Your task to perform on an android device: toggle notification dots Image 0: 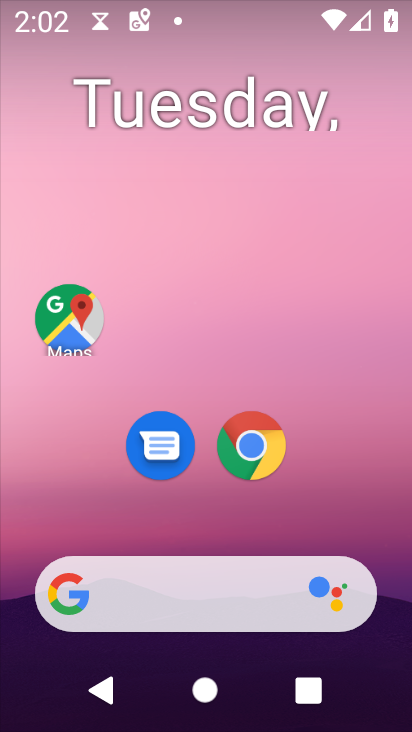
Step 0: drag from (333, 637) to (350, 9)
Your task to perform on an android device: toggle notification dots Image 1: 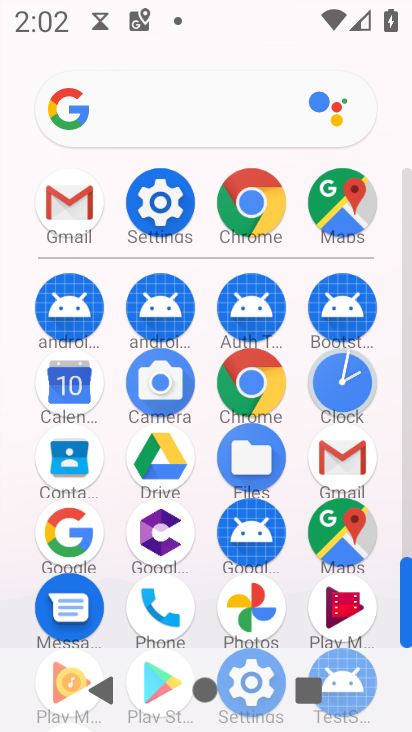
Step 1: click (156, 191)
Your task to perform on an android device: toggle notification dots Image 2: 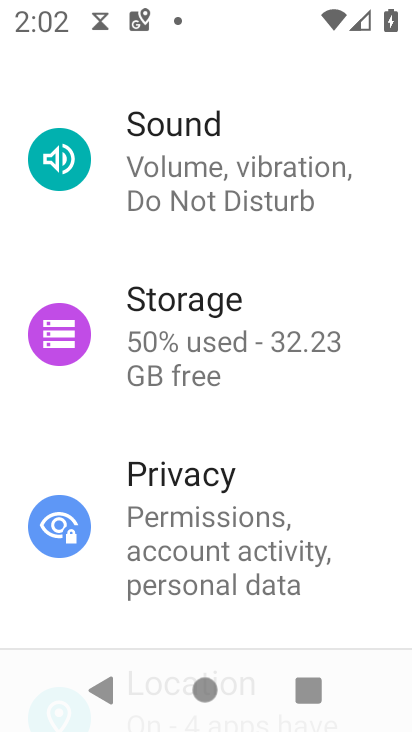
Step 2: drag from (261, 251) to (305, 196)
Your task to perform on an android device: toggle notification dots Image 3: 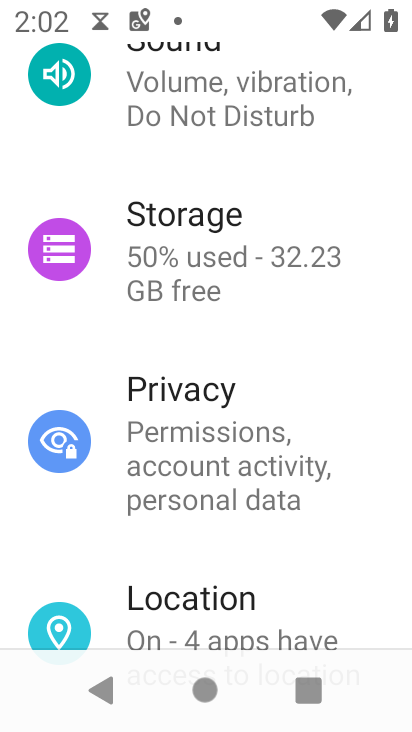
Step 3: click (326, 599)
Your task to perform on an android device: toggle notification dots Image 4: 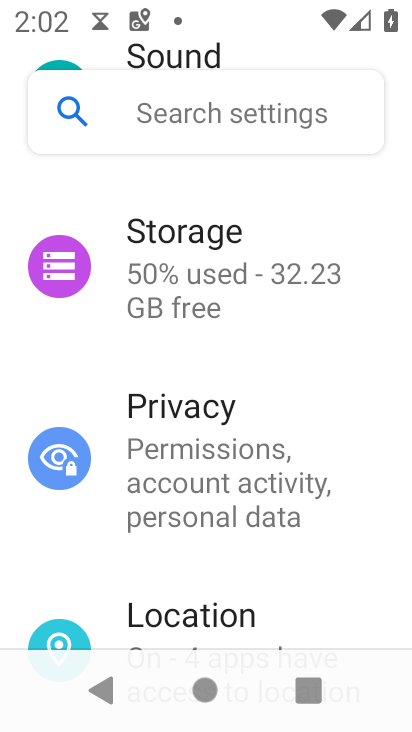
Step 4: drag from (306, 227) to (322, 632)
Your task to perform on an android device: toggle notification dots Image 5: 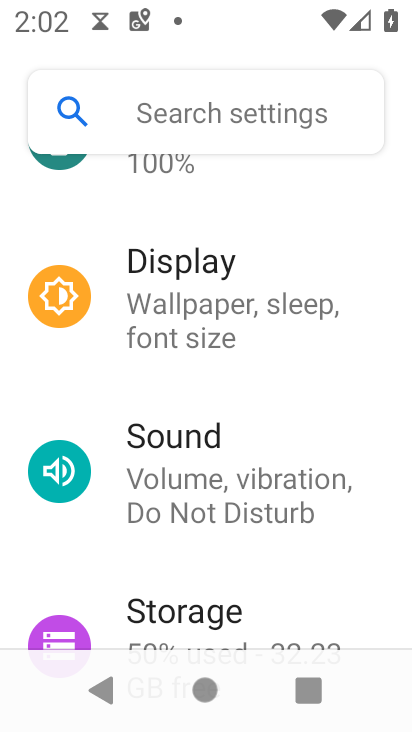
Step 5: drag from (278, 249) to (276, 642)
Your task to perform on an android device: toggle notification dots Image 6: 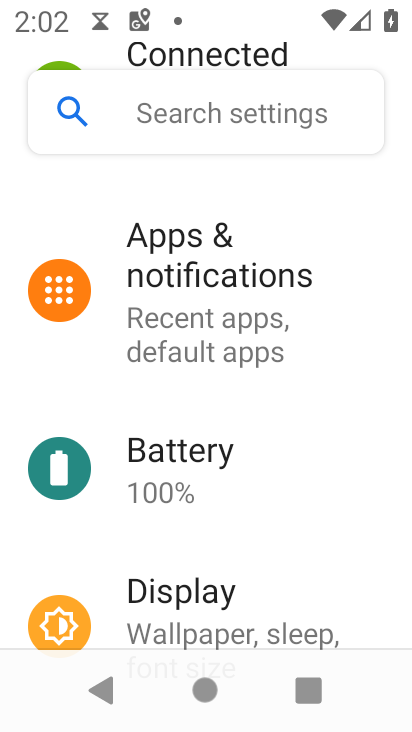
Step 6: click (265, 305)
Your task to perform on an android device: toggle notification dots Image 7: 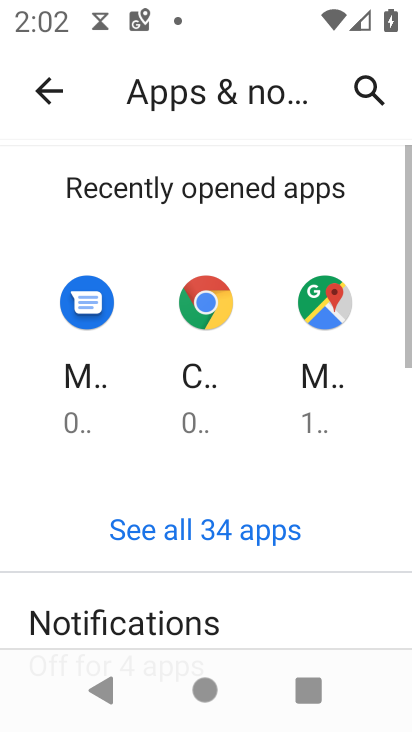
Step 7: drag from (287, 636) to (323, 169)
Your task to perform on an android device: toggle notification dots Image 8: 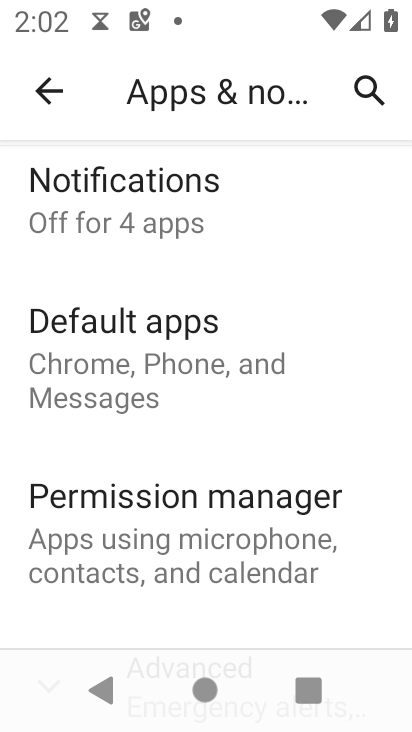
Step 8: click (154, 229)
Your task to perform on an android device: toggle notification dots Image 9: 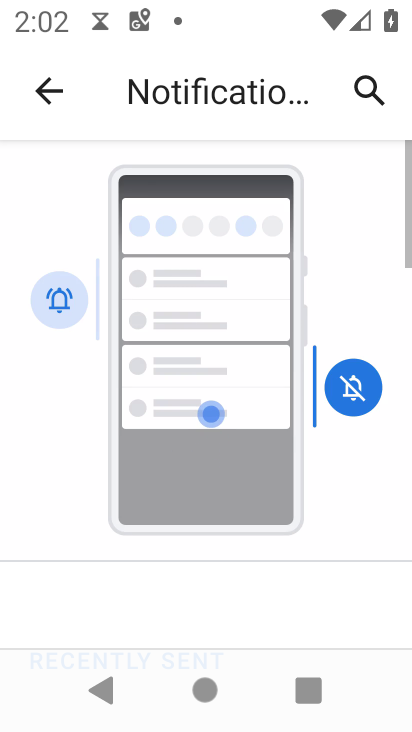
Step 9: drag from (291, 620) to (387, 86)
Your task to perform on an android device: toggle notification dots Image 10: 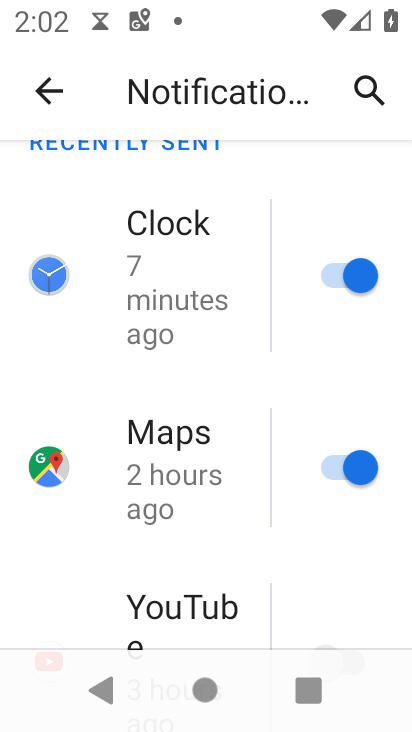
Step 10: drag from (252, 597) to (297, 142)
Your task to perform on an android device: toggle notification dots Image 11: 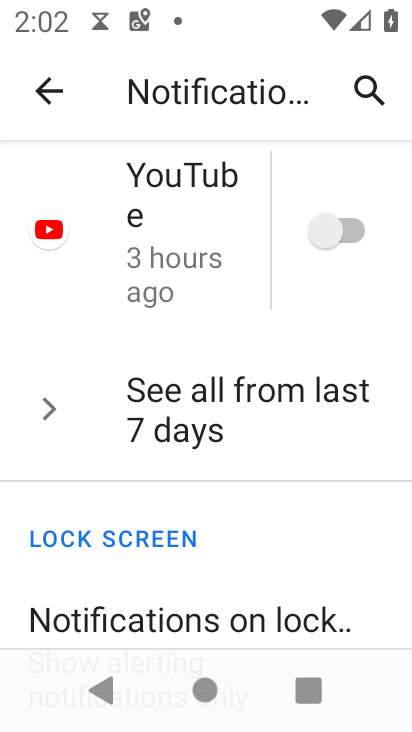
Step 11: drag from (261, 579) to (318, 151)
Your task to perform on an android device: toggle notification dots Image 12: 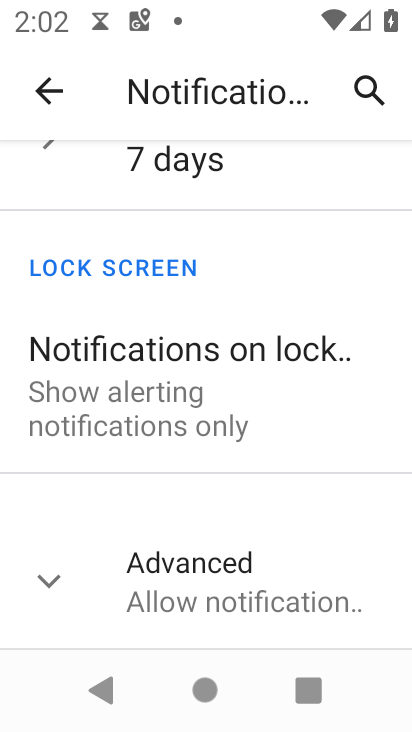
Step 12: click (276, 599)
Your task to perform on an android device: toggle notification dots Image 13: 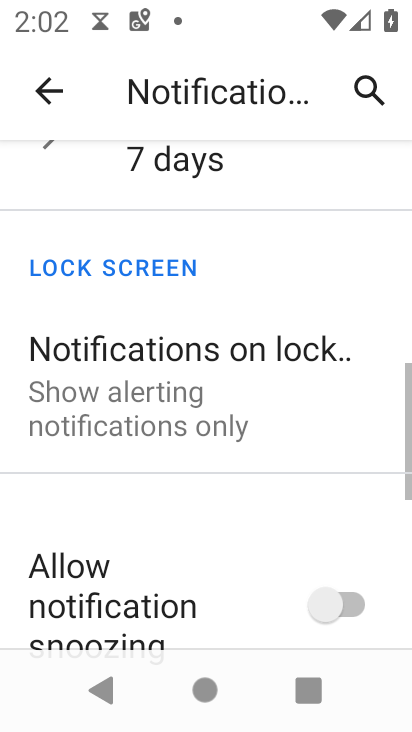
Step 13: drag from (276, 599) to (306, 266)
Your task to perform on an android device: toggle notification dots Image 14: 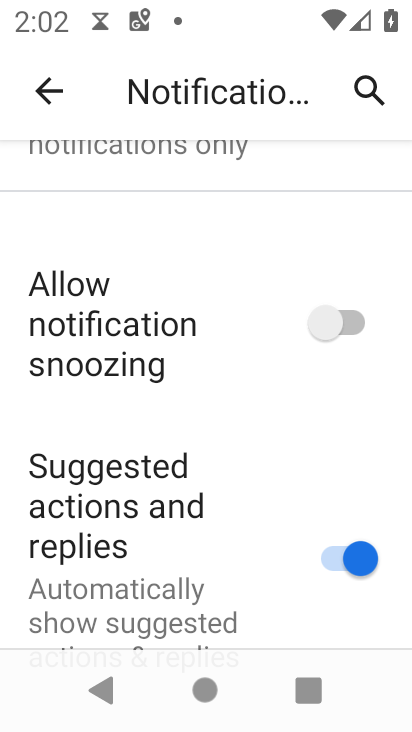
Step 14: drag from (270, 611) to (298, 206)
Your task to perform on an android device: toggle notification dots Image 15: 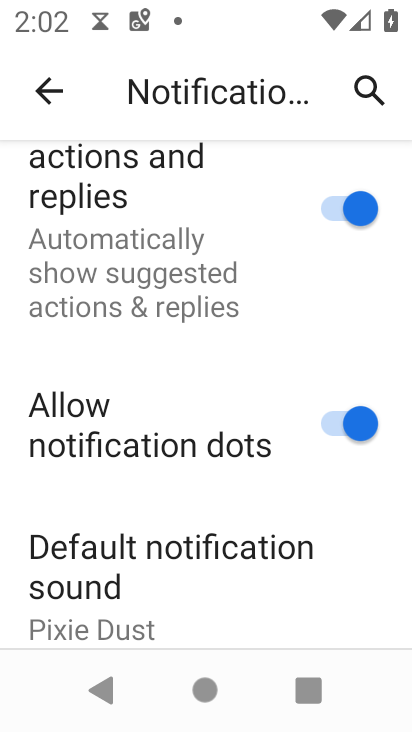
Step 15: click (320, 426)
Your task to perform on an android device: toggle notification dots Image 16: 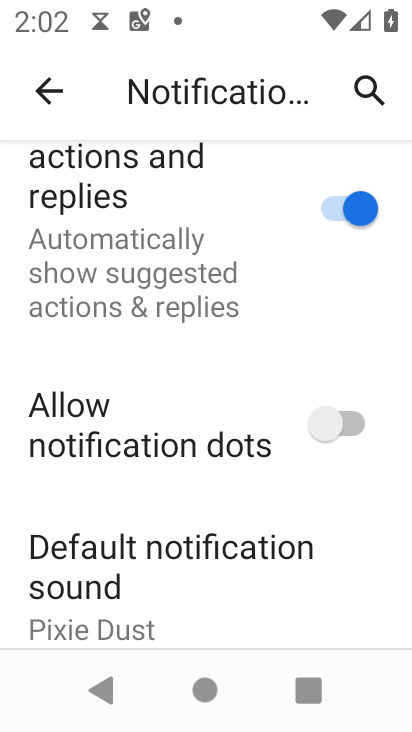
Step 16: task complete